Your task to perform on an android device: turn vacation reply on in the gmail app Image 0: 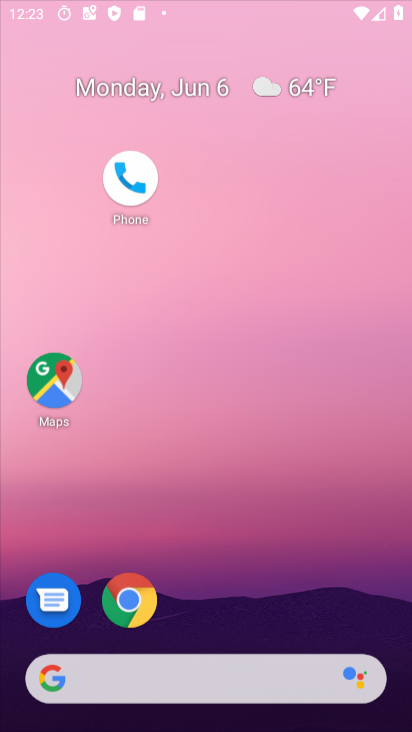
Step 0: press back button
Your task to perform on an android device: turn vacation reply on in the gmail app Image 1: 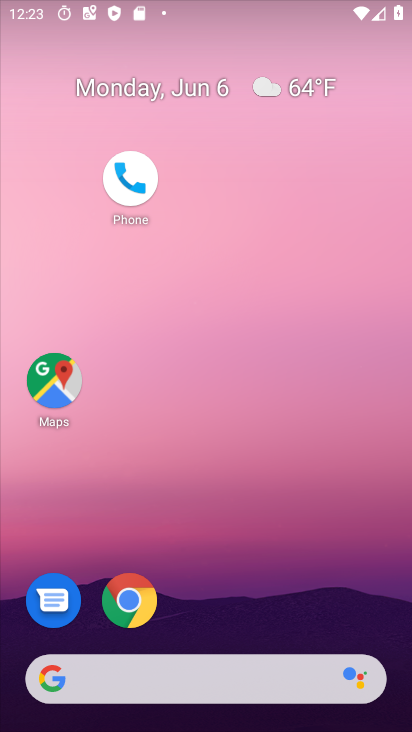
Step 1: press home button
Your task to perform on an android device: turn vacation reply on in the gmail app Image 2: 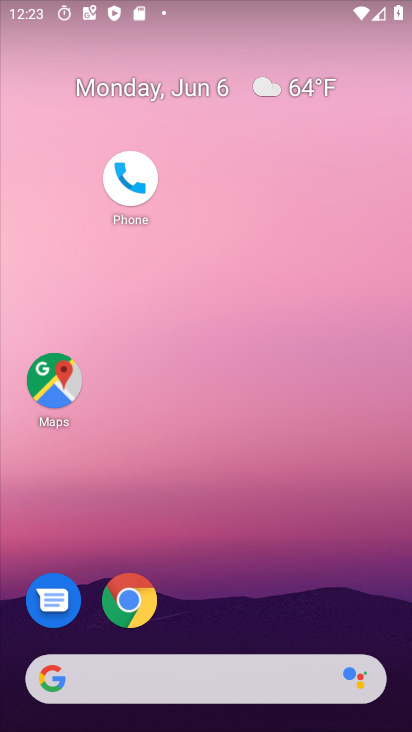
Step 2: drag from (212, 617) to (146, 187)
Your task to perform on an android device: turn vacation reply on in the gmail app Image 3: 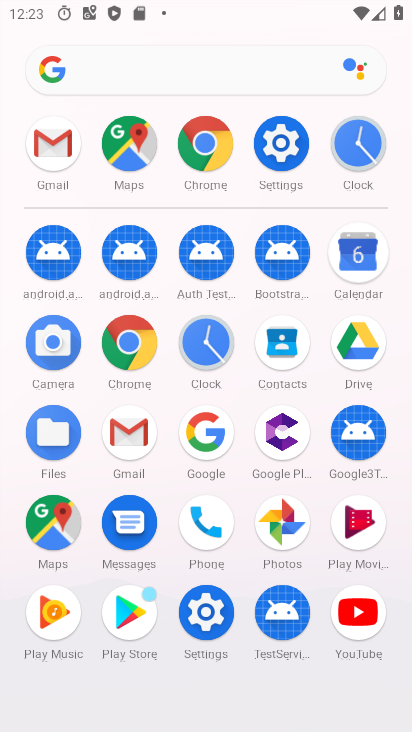
Step 3: click (135, 431)
Your task to perform on an android device: turn vacation reply on in the gmail app Image 4: 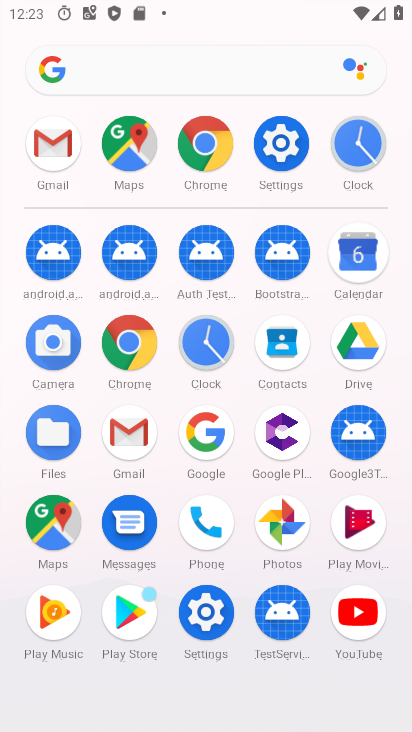
Step 4: click (135, 431)
Your task to perform on an android device: turn vacation reply on in the gmail app Image 5: 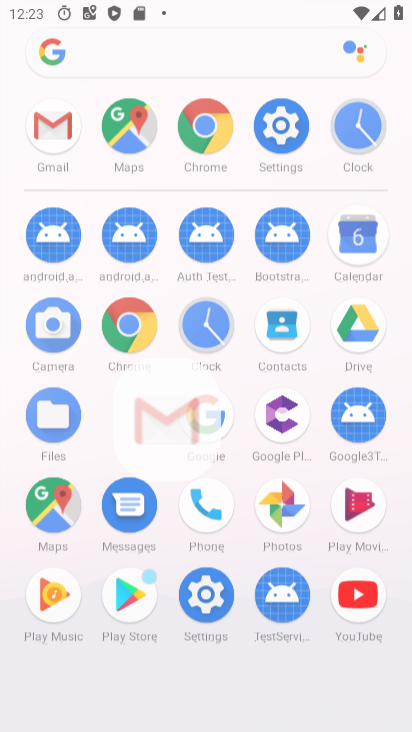
Step 5: click (137, 430)
Your task to perform on an android device: turn vacation reply on in the gmail app Image 6: 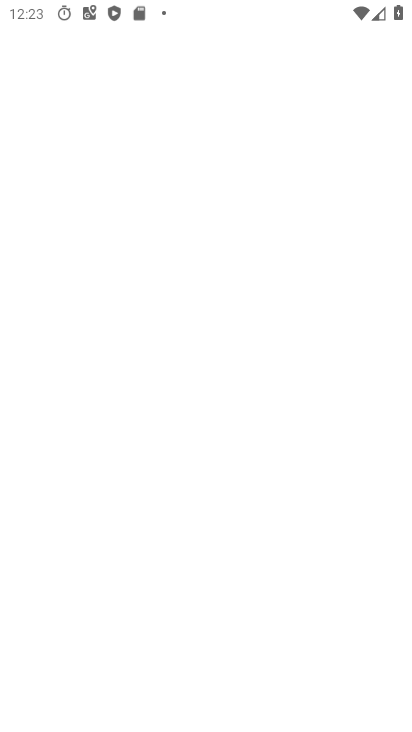
Step 6: click (136, 428)
Your task to perform on an android device: turn vacation reply on in the gmail app Image 7: 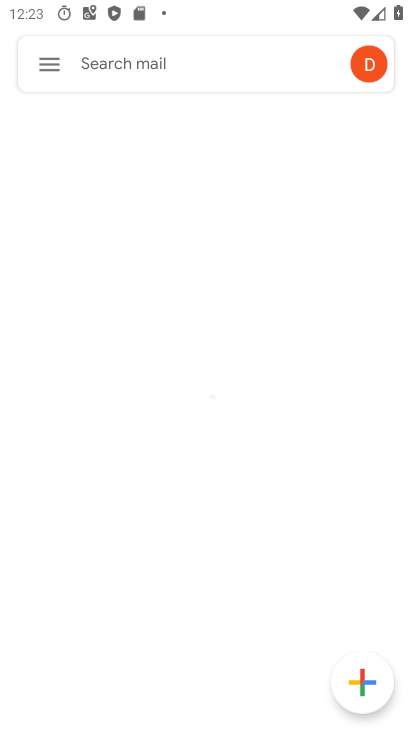
Step 7: click (59, 70)
Your task to perform on an android device: turn vacation reply on in the gmail app Image 8: 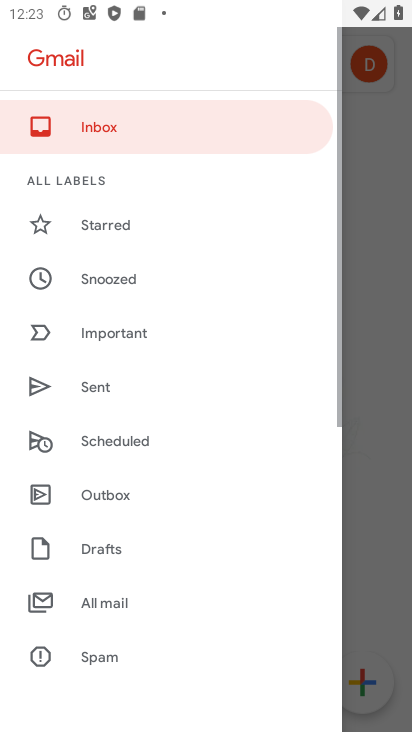
Step 8: drag from (139, 606) to (116, 84)
Your task to perform on an android device: turn vacation reply on in the gmail app Image 9: 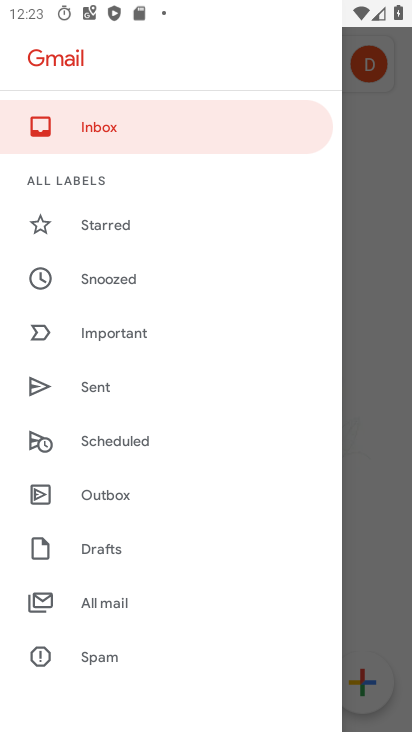
Step 9: drag from (122, 383) to (121, 154)
Your task to perform on an android device: turn vacation reply on in the gmail app Image 10: 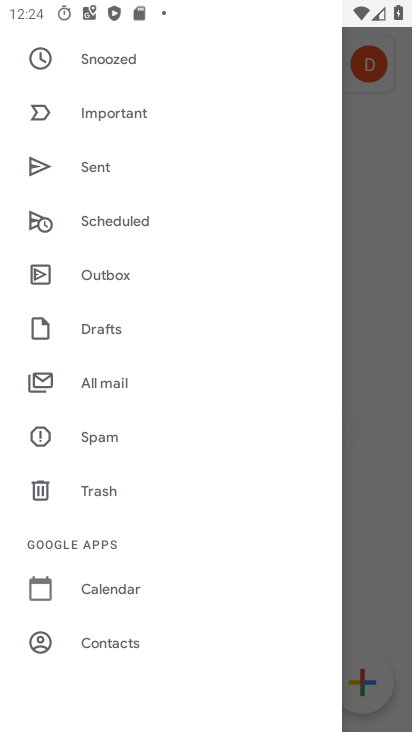
Step 10: drag from (156, 585) to (128, 224)
Your task to perform on an android device: turn vacation reply on in the gmail app Image 11: 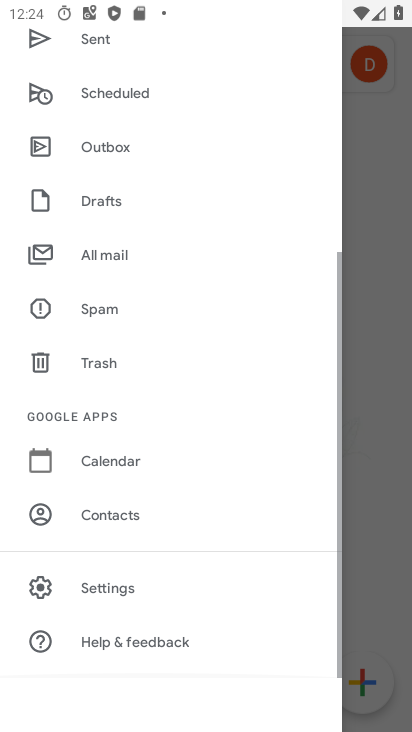
Step 11: drag from (162, 479) to (164, 154)
Your task to perform on an android device: turn vacation reply on in the gmail app Image 12: 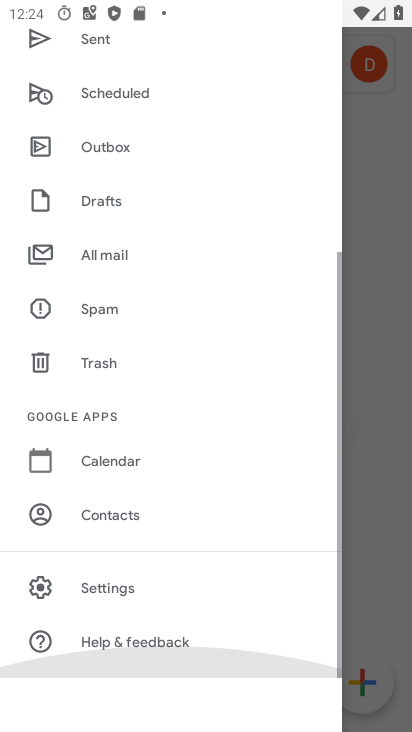
Step 12: drag from (156, 499) to (155, 207)
Your task to perform on an android device: turn vacation reply on in the gmail app Image 13: 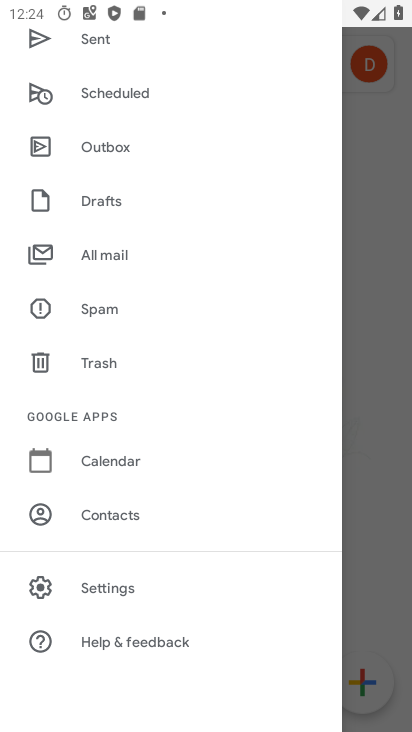
Step 13: click (118, 584)
Your task to perform on an android device: turn vacation reply on in the gmail app Image 14: 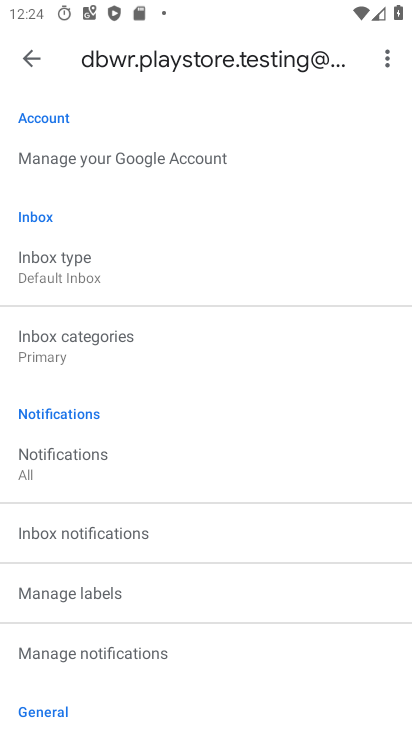
Step 14: drag from (101, 603) to (45, 175)
Your task to perform on an android device: turn vacation reply on in the gmail app Image 15: 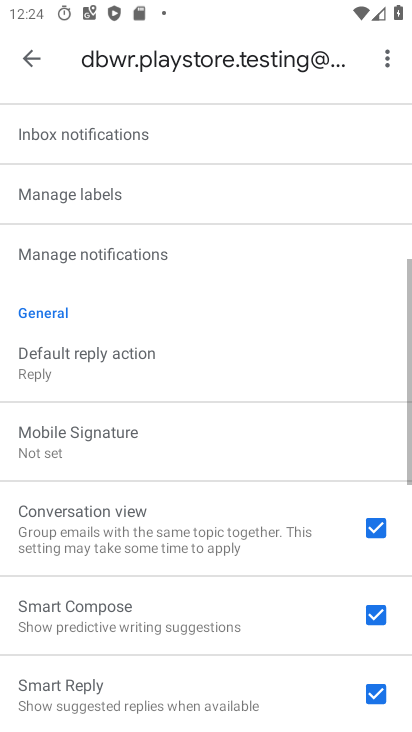
Step 15: drag from (96, 542) to (104, 216)
Your task to perform on an android device: turn vacation reply on in the gmail app Image 16: 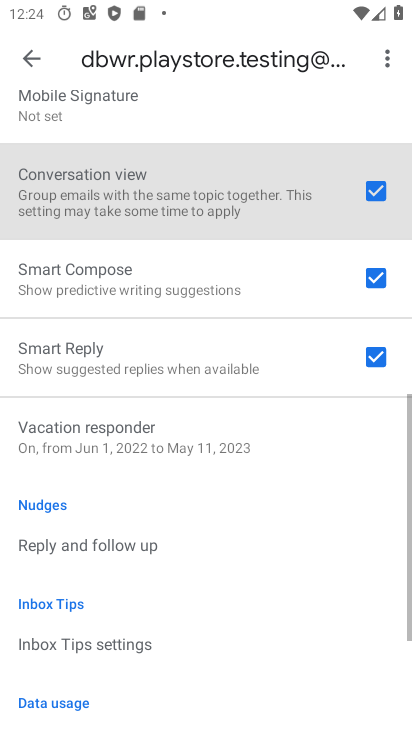
Step 16: drag from (135, 441) to (137, 239)
Your task to perform on an android device: turn vacation reply on in the gmail app Image 17: 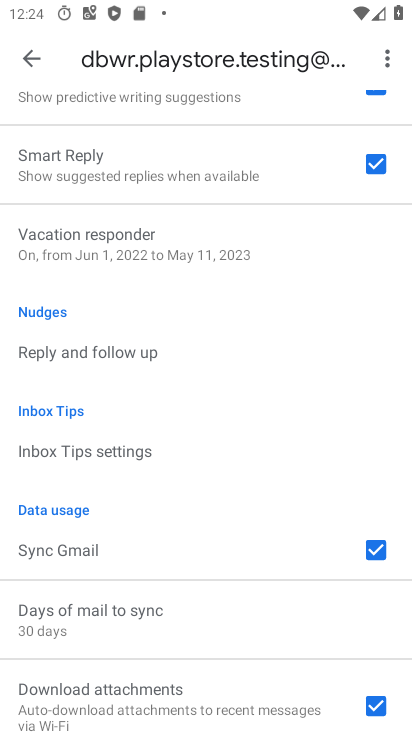
Step 17: click (169, 247)
Your task to perform on an android device: turn vacation reply on in the gmail app Image 18: 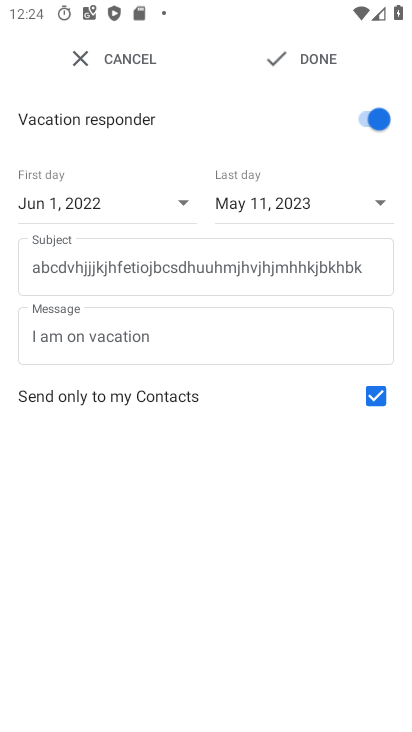
Step 18: task complete